Your task to perform on an android device: show emergency info Image 0: 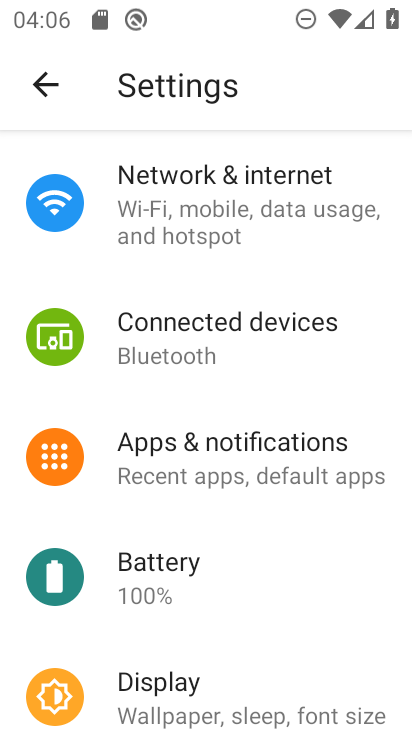
Step 0: drag from (314, 610) to (336, 148)
Your task to perform on an android device: show emergency info Image 1: 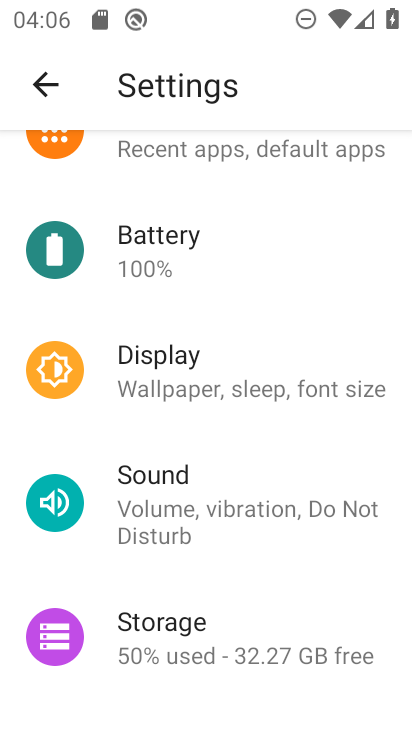
Step 1: drag from (337, 700) to (335, 237)
Your task to perform on an android device: show emergency info Image 2: 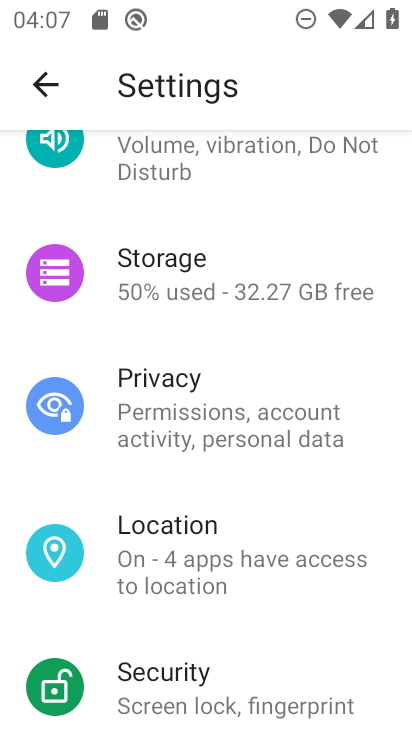
Step 2: drag from (311, 684) to (317, 186)
Your task to perform on an android device: show emergency info Image 3: 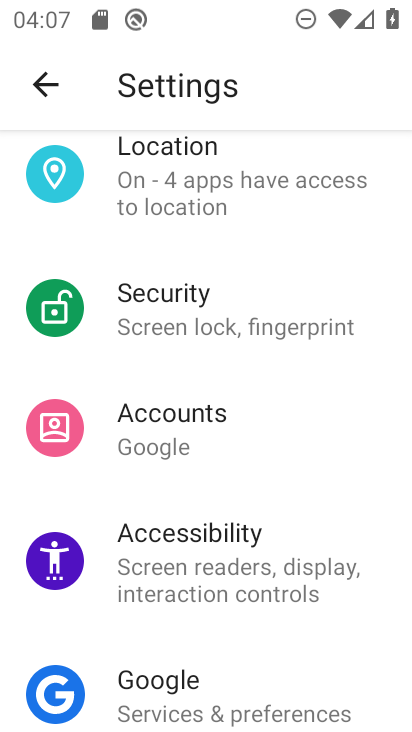
Step 3: drag from (284, 618) to (307, 132)
Your task to perform on an android device: show emergency info Image 4: 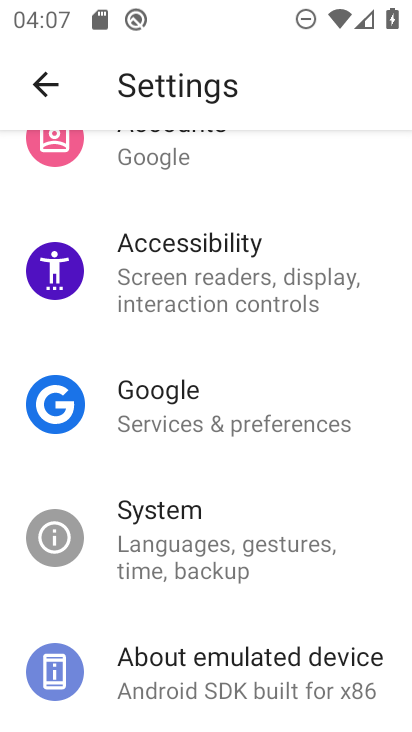
Step 4: click (190, 676)
Your task to perform on an android device: show emergency info Image 5: 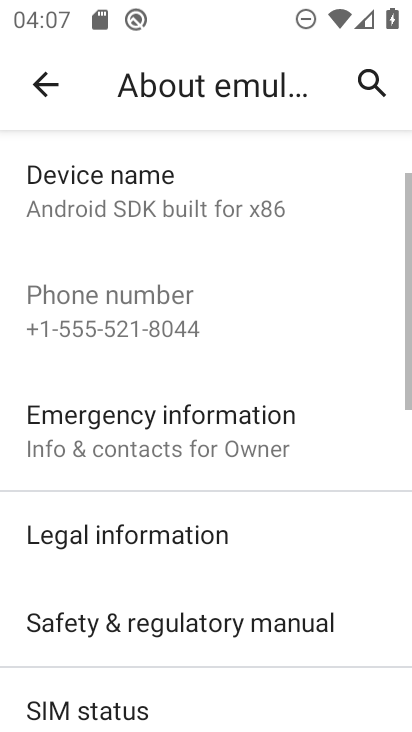
Step 5: drag from (280, 670) to (284, 586)
Your task to perform on an android device: show emergency info Image 6: 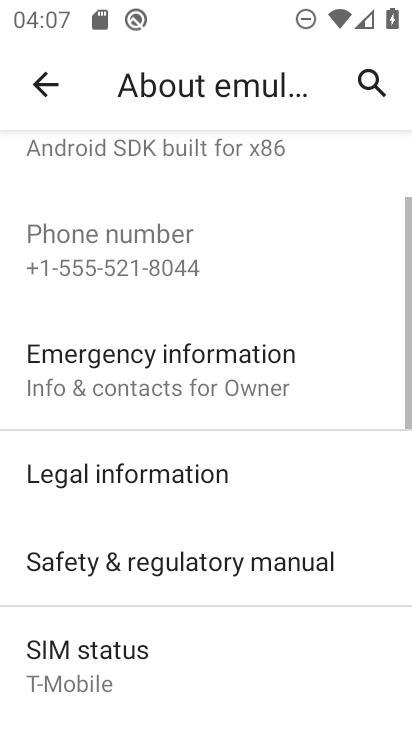
Step 6: click (96, 342)
Your task to perform on an android device: show emergency info Image 7: 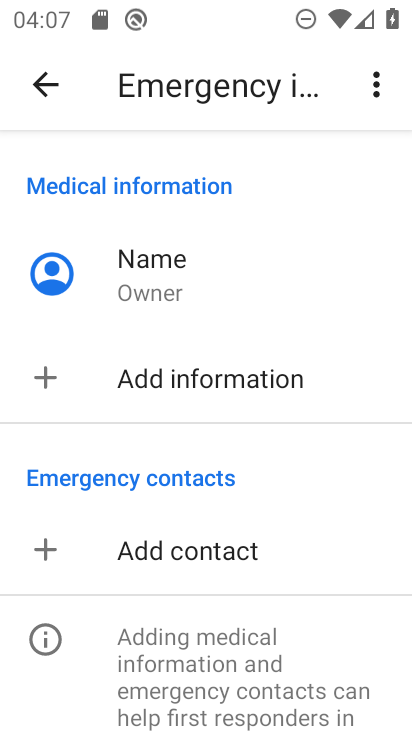
Step 7: task complete